Your task to perform on an android device: Find coffee shops on Maps Image 0: 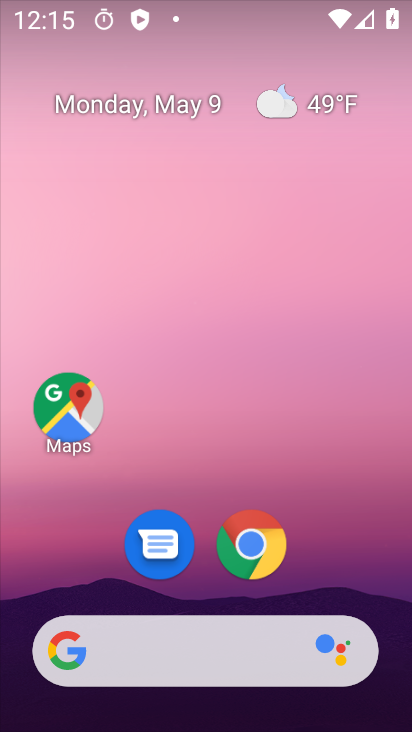
Step 0: drag from (321, 638) to (322, 81)
Your task to perform on an android device: Find coffee shops on Maps Image 1: 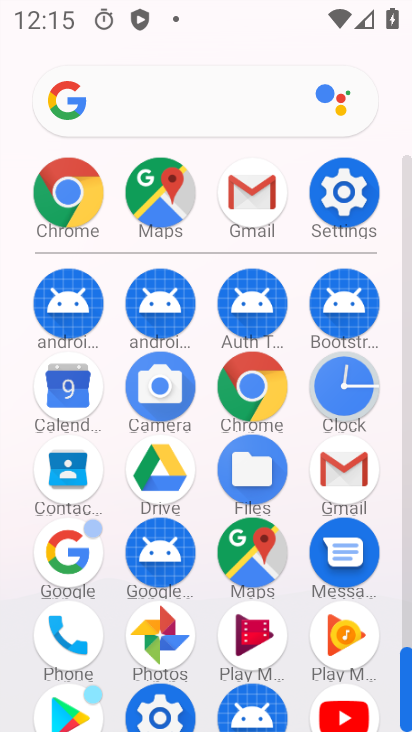
Step 1: click (262, 562)
Your task to perform on an android device: Find coffee shops on Maps Image 2: 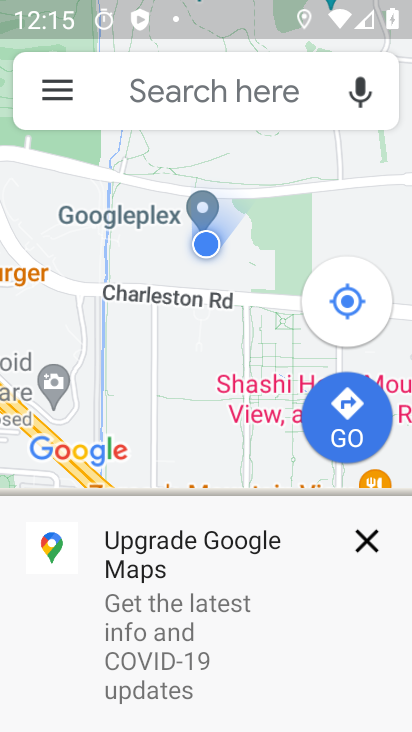
Step 2: click (229, 104)
Your task to perform on an android device: Find coffee shops on Maps Image 3: 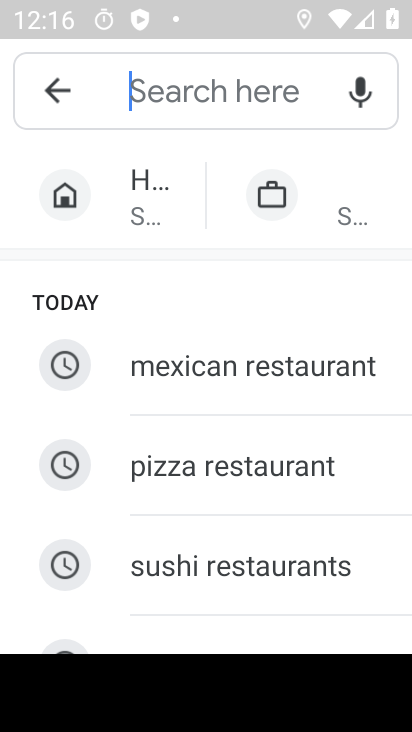
Step 3: type "coffee shop"
Your task to perform on an android device: Find coffee shops on Maps Image 4: 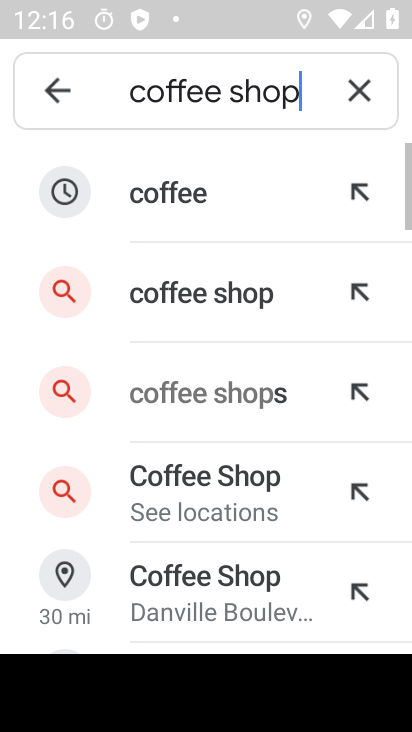
Step 4: click (283, 307)
Your task to perform on an android device: Find coffee shops on Maps Image 5: 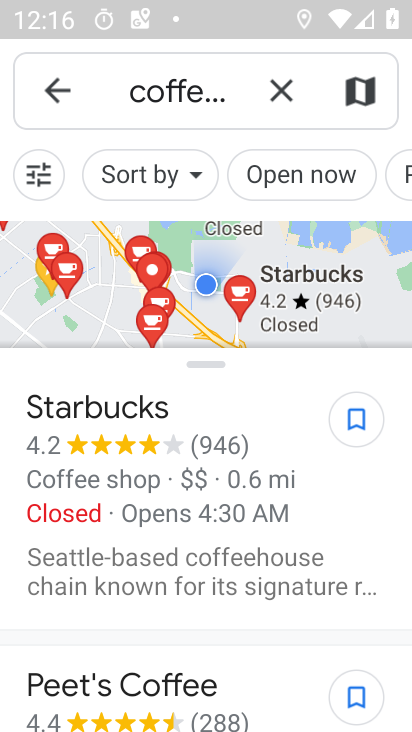
Step 5: task complete